Your task to perform on an android device: turn off notifications in google photos Image 0: 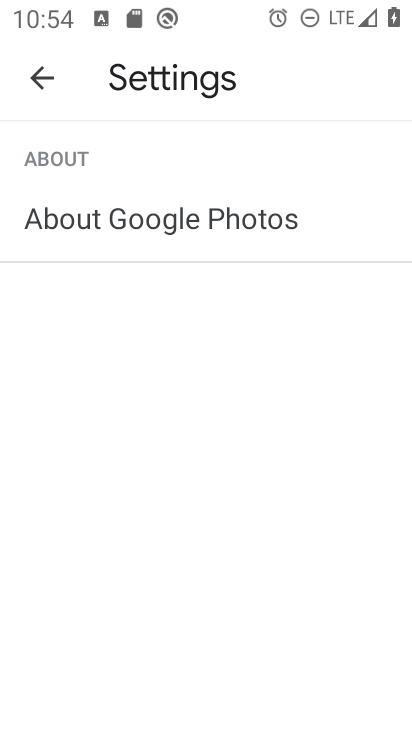
Step 0: press home button
Your task to perform on an android device: turn off notifications in google photos Image 1: 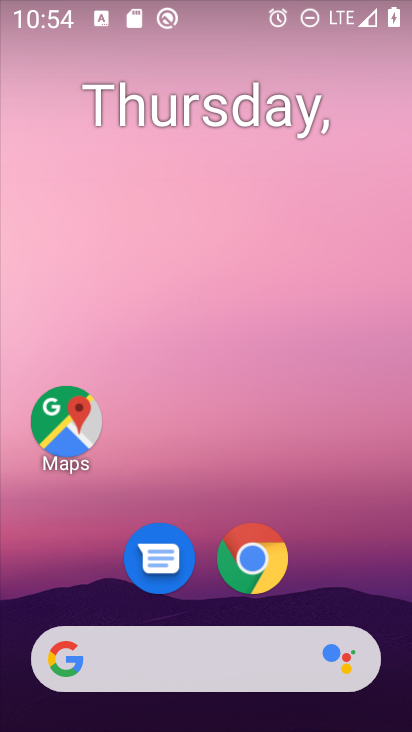
Step 1: drag from (388, 633) to (338, 166)
Your task to perform on an android device: turn off notifications in google photos Image 2: 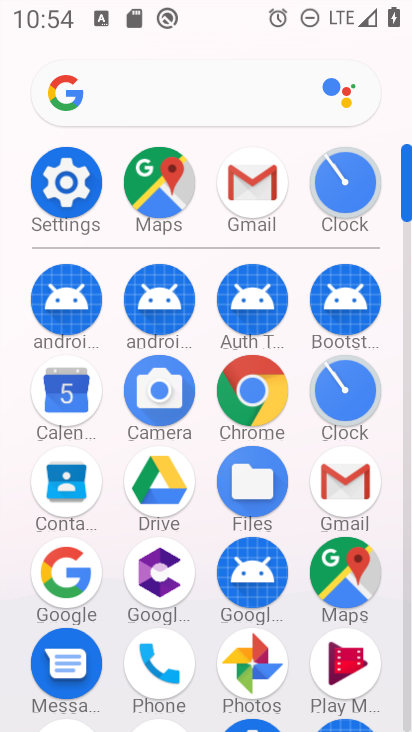
Step 2: click (407, 709)
Your task to perform on an android device: turn off notifications in google photos Image 3: 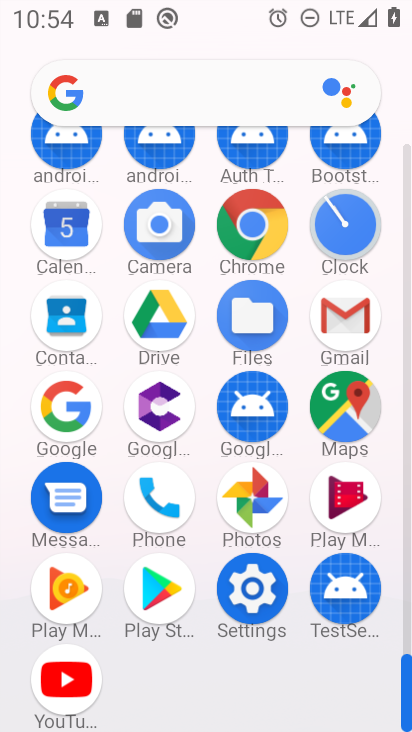
Step 3: click (251, 496)
Your task to perform on an android device: turn off notifications in google photos Image 4: 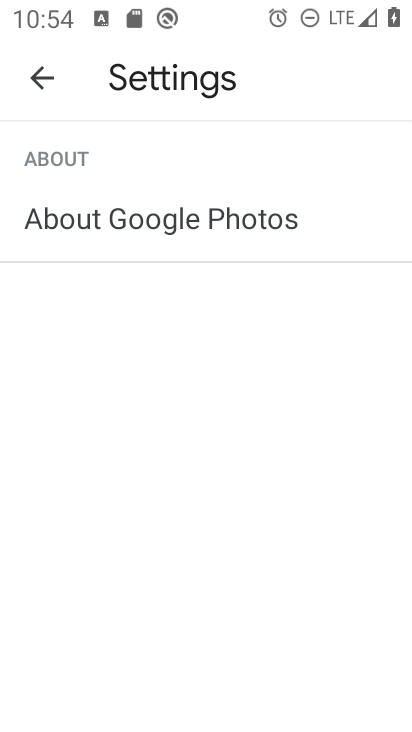
Step 4: press back button
Your task to perform on an android device: turn off notifications in google photos Image 5: 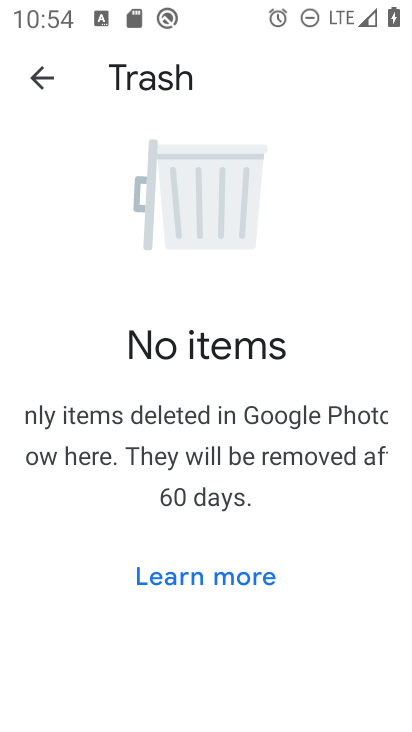
Step 5: press back button
Your task to perform on an android device: turn off notifications in google photos Image 6: 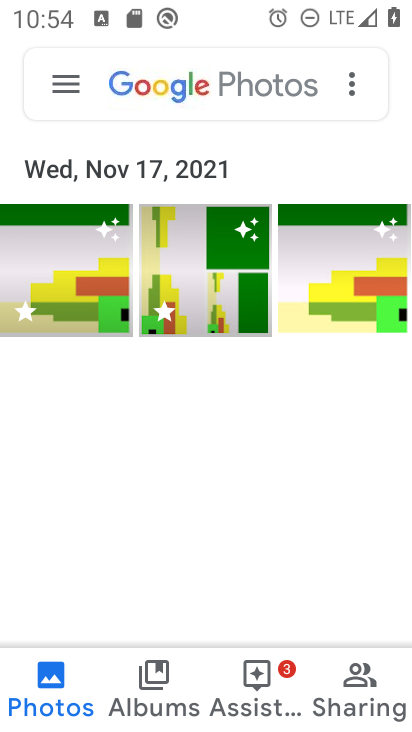
Step 6: click (61, 79)
Your task to perform on an android device: turn off notifications in google photos Image 7: 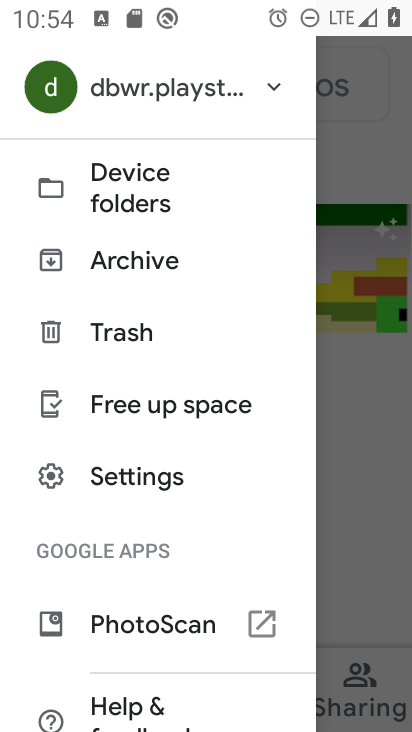
Step 7: click (120, 477)
Your task to perform on an android device: turn off notifications in google photos Image 8: 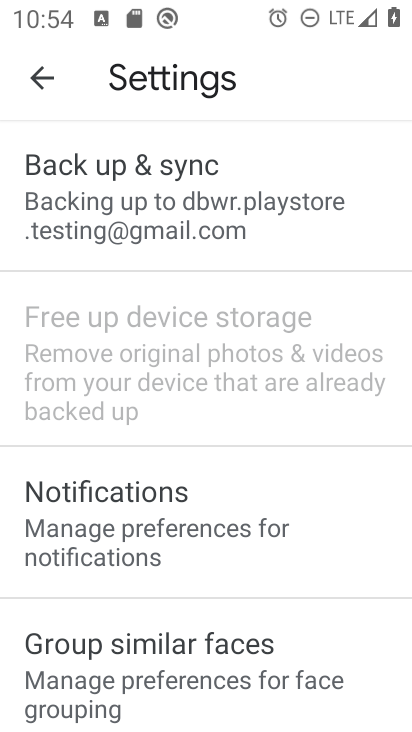
Step 8: click (102, 520)
Your task to perform on an android device: turn off notifications in google photos Image 9: 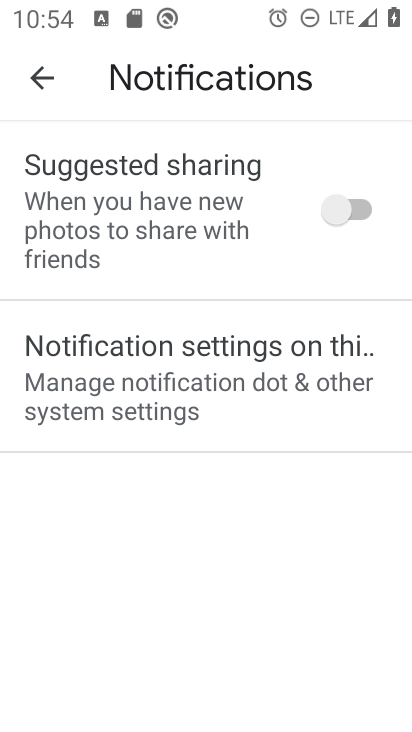
Step 9: click (153, 398)
Your task to perform on an android device: turn off notifications in google photos Image 10: 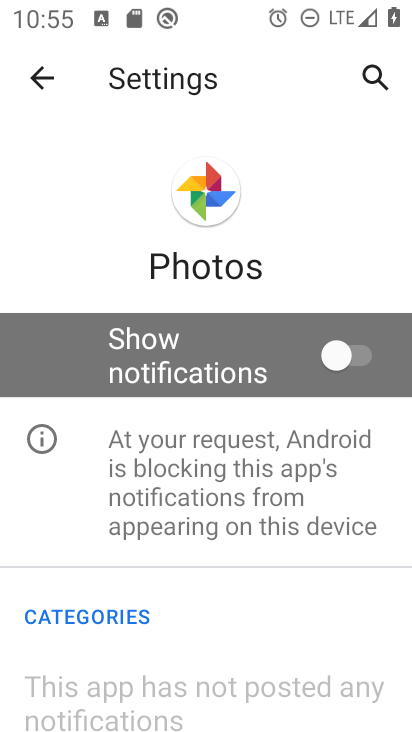
Step 10: task complete